Your task to perform on an android device: change text size in settings app Image 0: 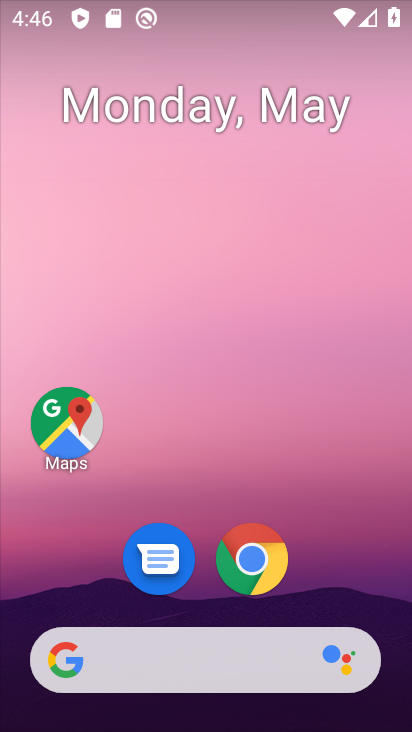
Step 0: drag from (156, 696) to (407, 0)
Your task to perform on an android device: change text size in settings app Image 1: 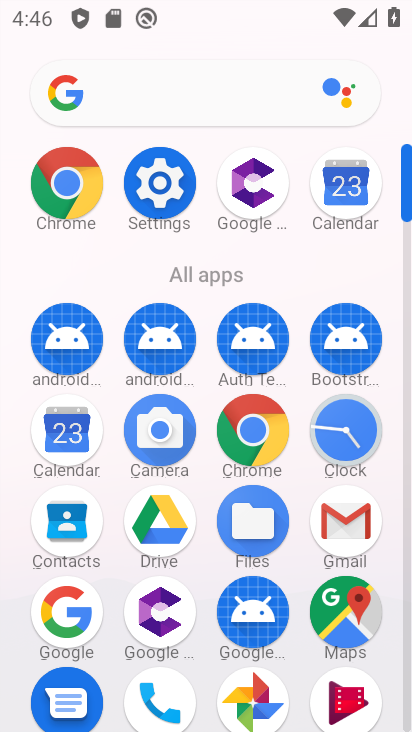
Step 1: click (167, 164)
Your task to perform on an android device: change text size in settings app Image 2: 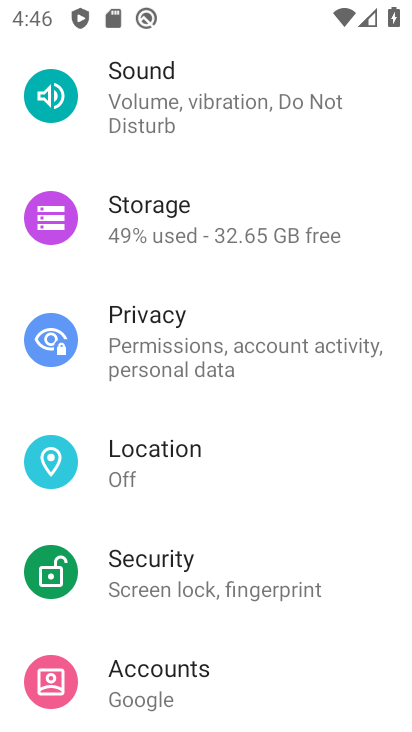
Step 2: drag from (256, 189) to (283, 31)
Your task to perform on an android device: change text size in settings app Image 3: 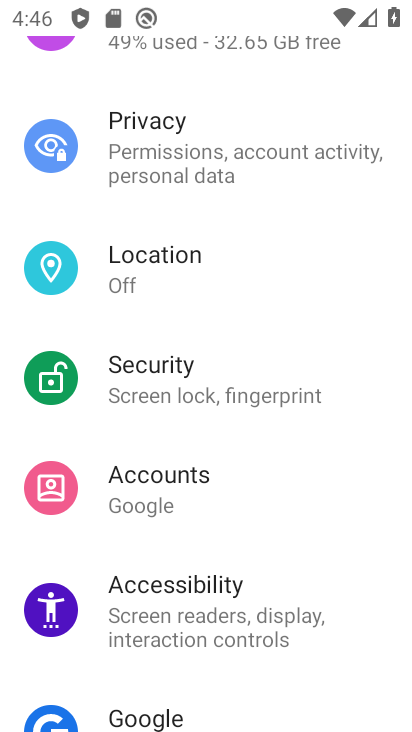
Step 3: drag from (225, 634) to (277, 57)
Your task to perform on an android device: change text size in settings app Image 4: 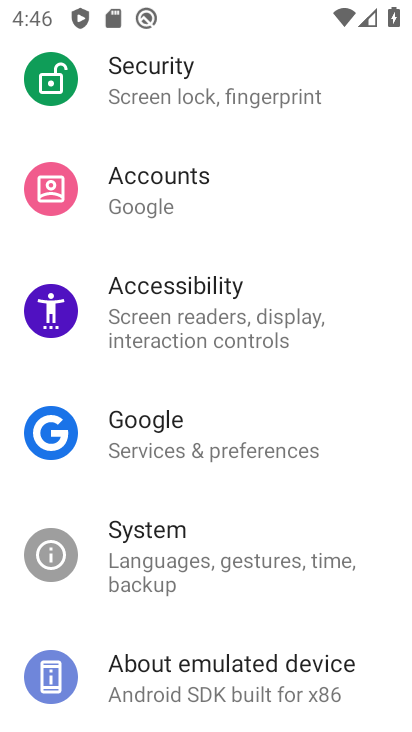
Step 4: click (180, 541)
Your task to perform on an android device: change text size in settings app Image 5: 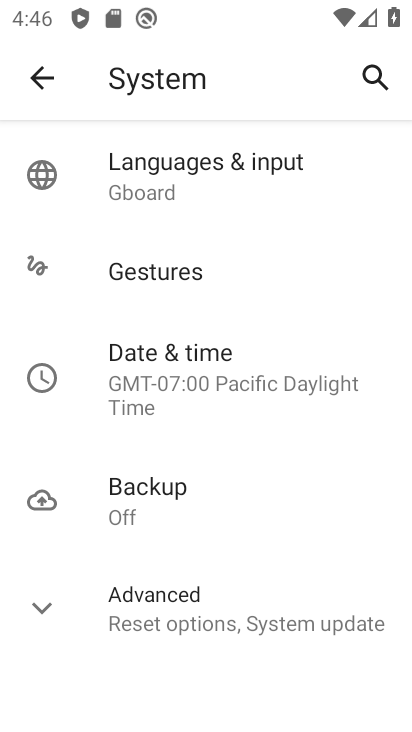
Step 5: press back button
Your task to perform on an android device: change text size in settings app Image 6: 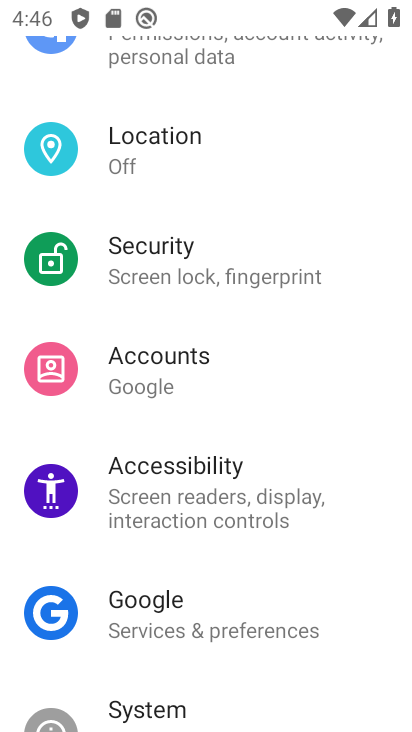
Step 6: click (170, 488)
Your task to perform on an android device: change text size in settings app Image 7: 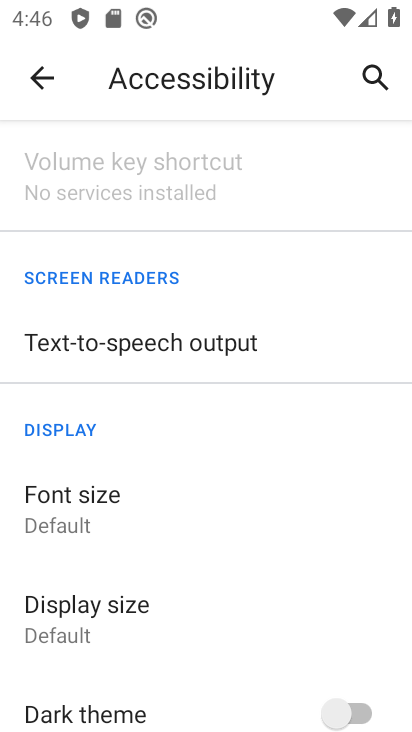
Step 7: click (104, 520)
Your task to perform on an android device: change text size in settings app Image 8: 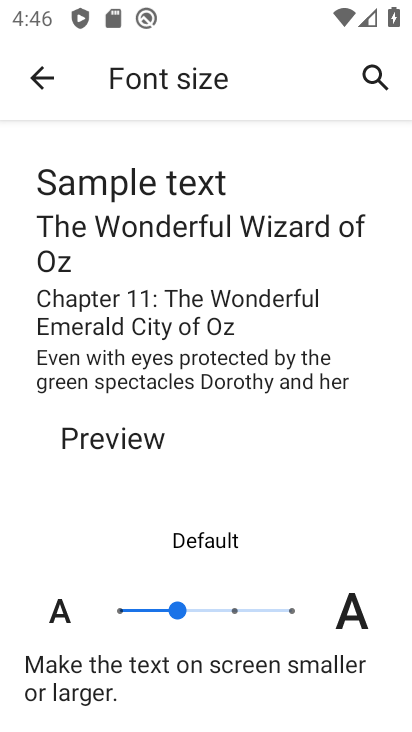
Step 8: click (135, 608)
Your task to perform on an android device: change text size in settings app Image 9: 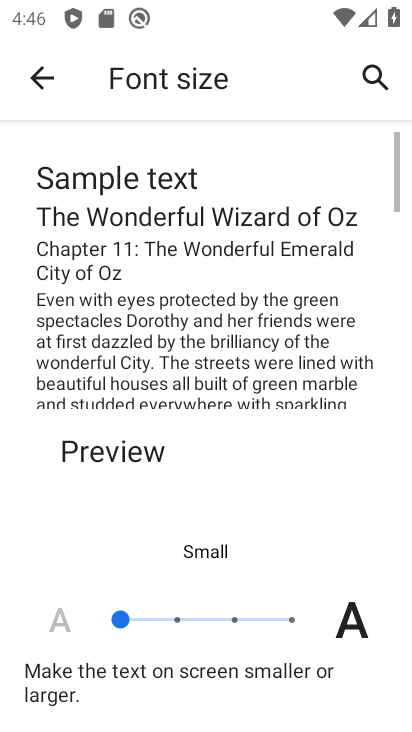
Step 9: task complete